Your task to perform on an android device: Find coffee shops on Maps Image 0: 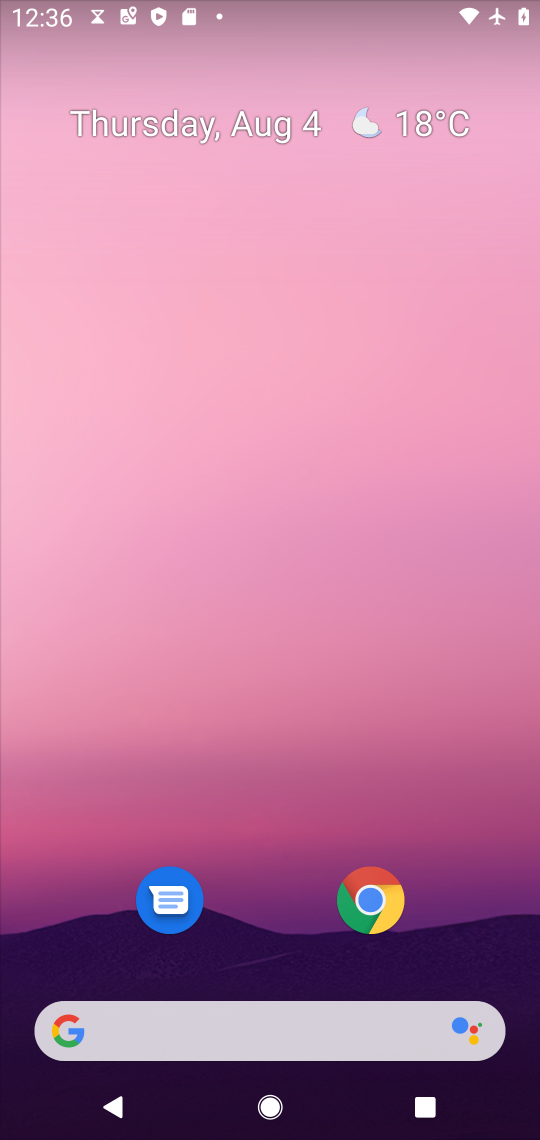
Step 0: press home button
Your task to perform on an android device: Find coffee shops on Maps Image 1: 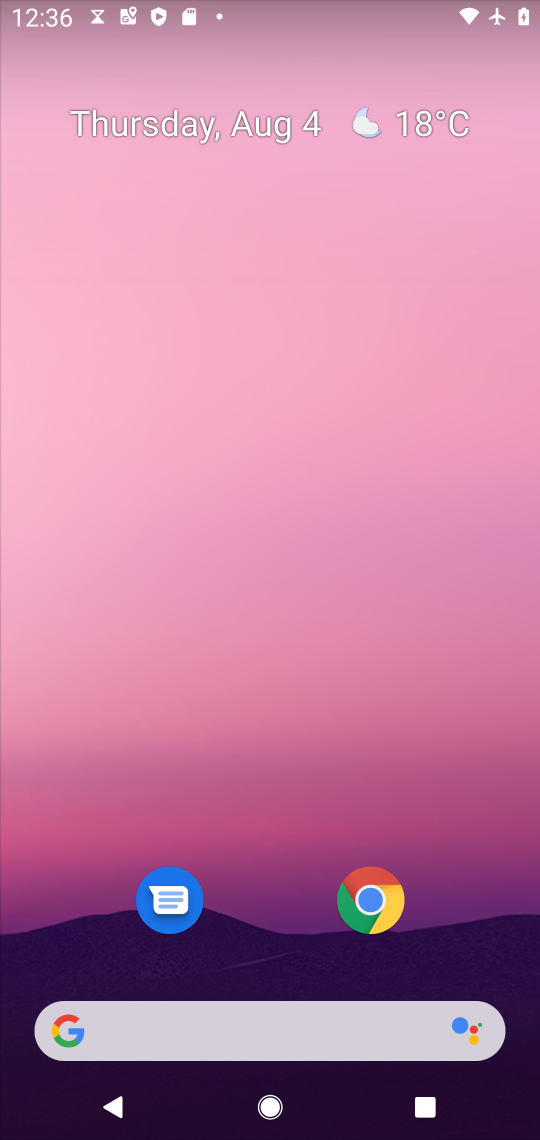
Step 1: drag from (289, 961) to (430, 120)
Your task to perform on an android device: Find coffee shops on Maps Image 2: 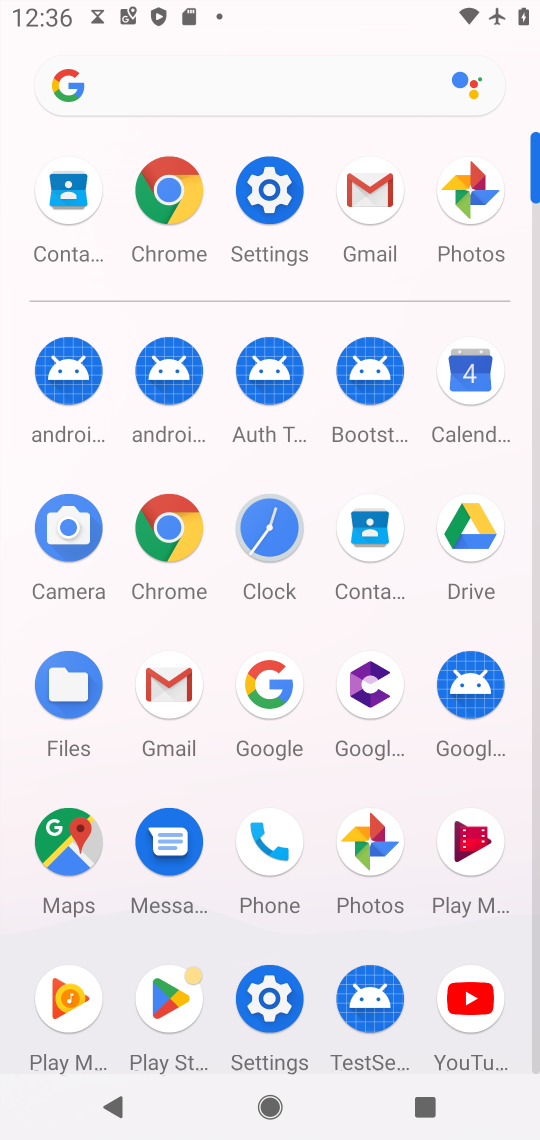
Step 2: click (79, 861)
Your task to perform on an android device: Find coffee shops on Maps Image 3: 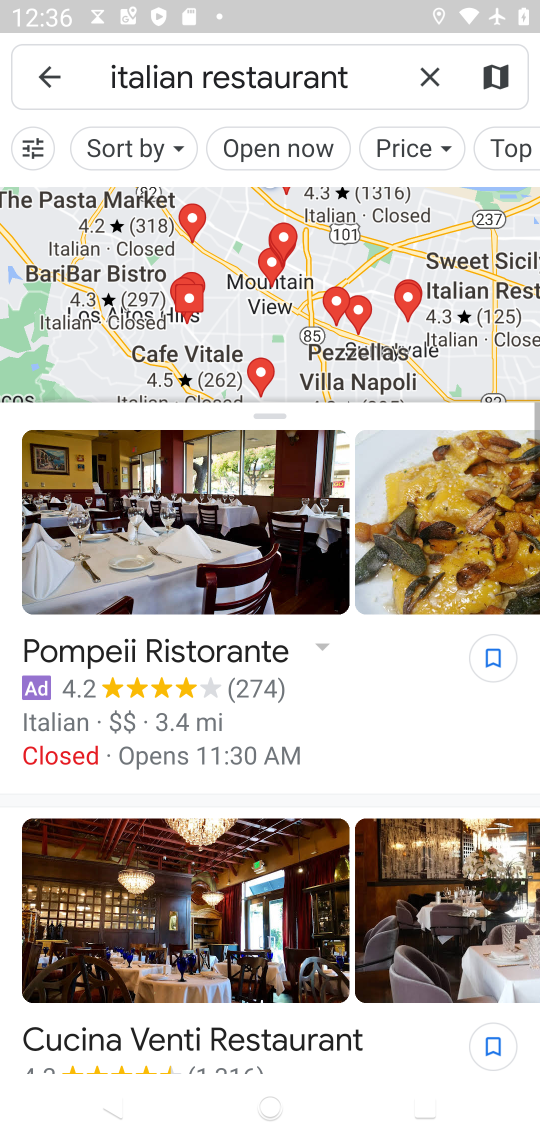
Step 3: click (432, 86)
Your task to perform on an android device: Find coffee shops on Maps Image 4: 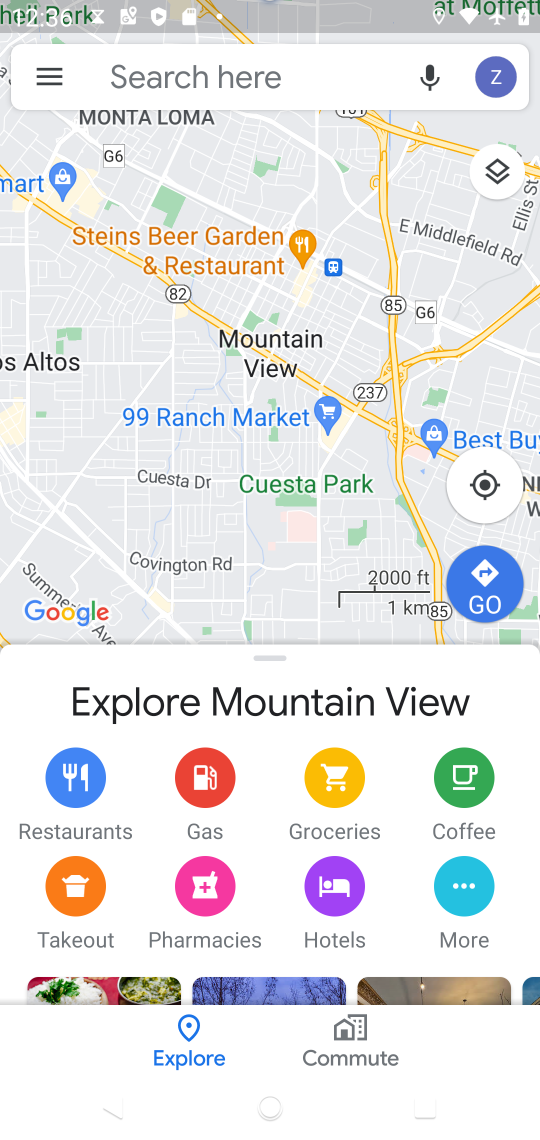
Step 4: click (185, 72)
Your task to perform on an android device: Find coffee shops on Maps Image 5: 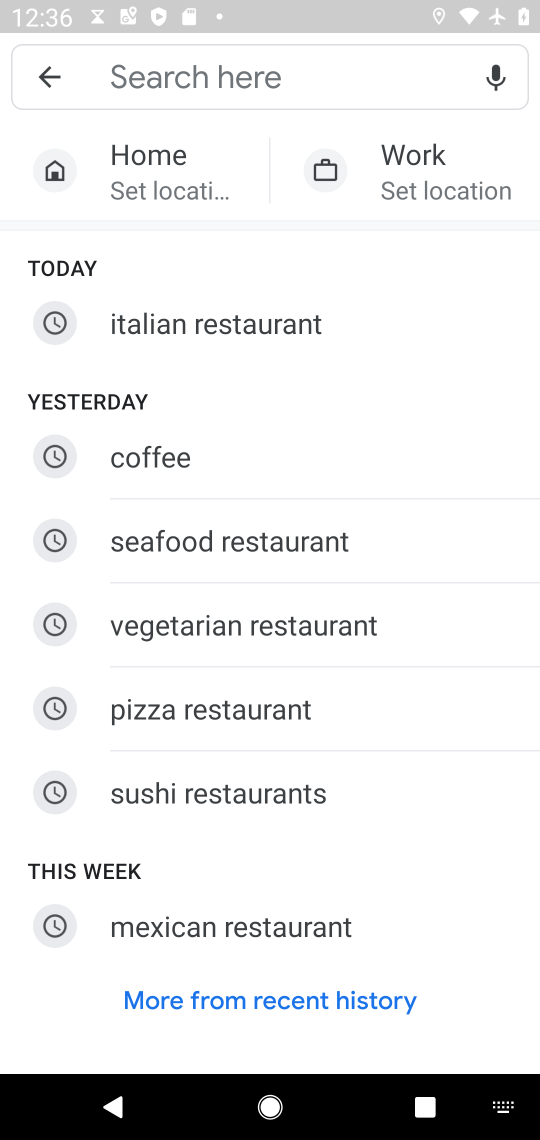
Step 5: type "coffee shops "
Your task to perform on an android device: Find coffee shops on Maps Image 6: 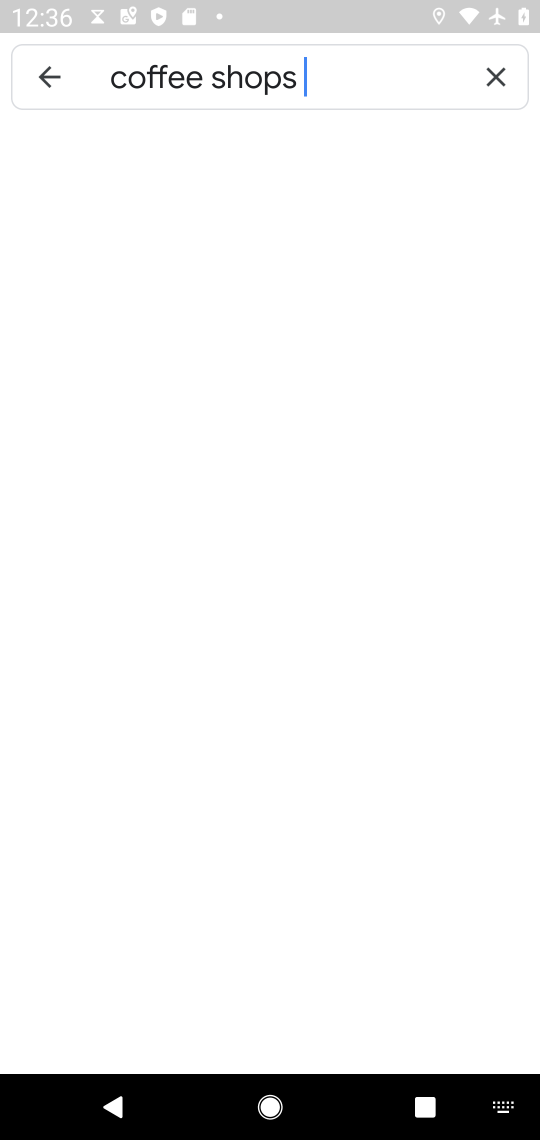
Step 6: press enter
Your task to perform on an android device: Find coffee shops on Maps Image 7: 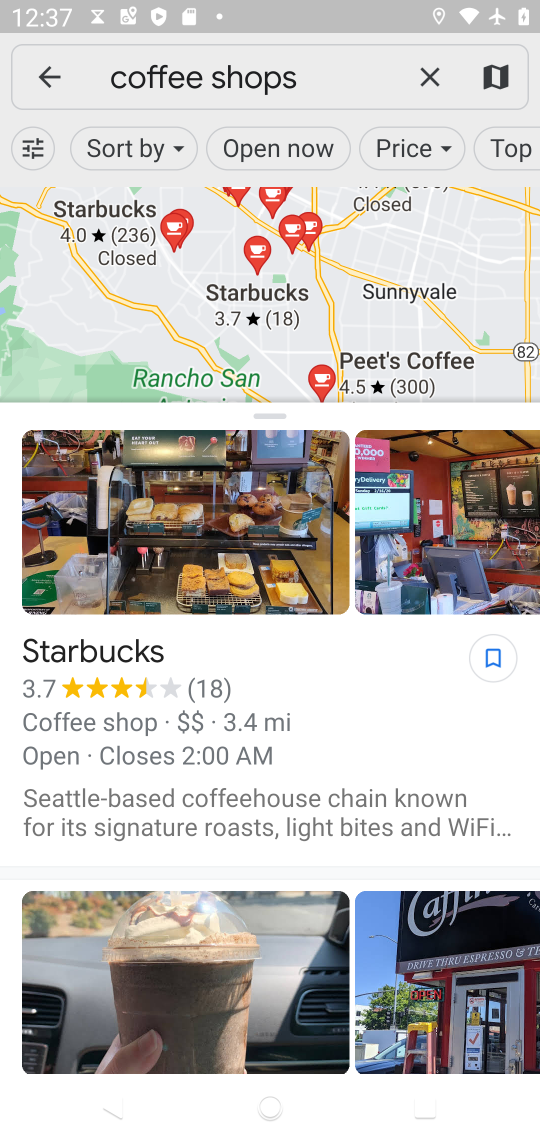
Step 7: task complete